Your task to perform on an android device: Open display settings Image 0: 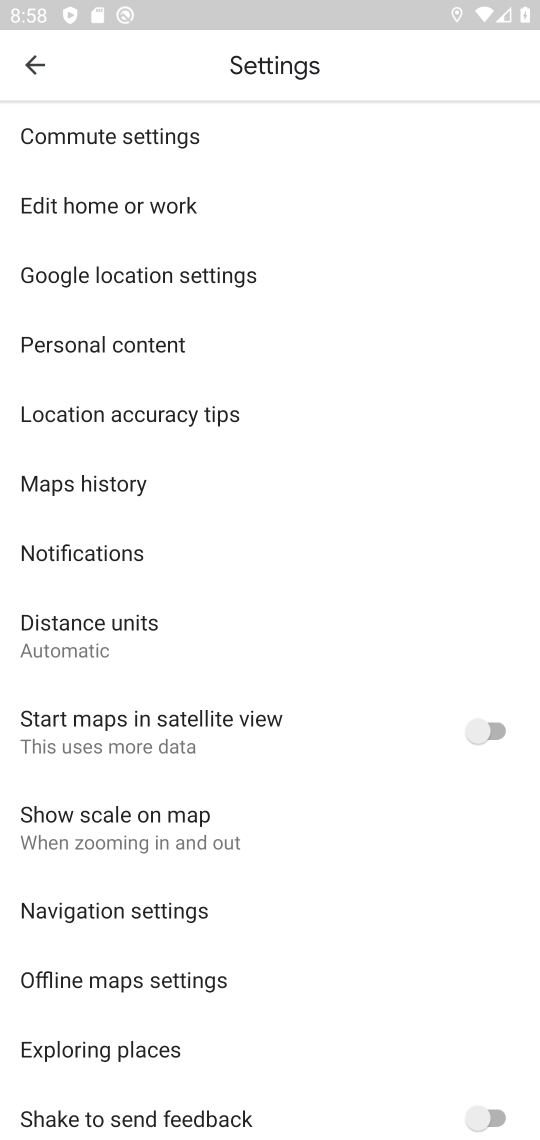
Step 0: click (418, 863)
Your task to perform on an android device: Open display settings Image 1: 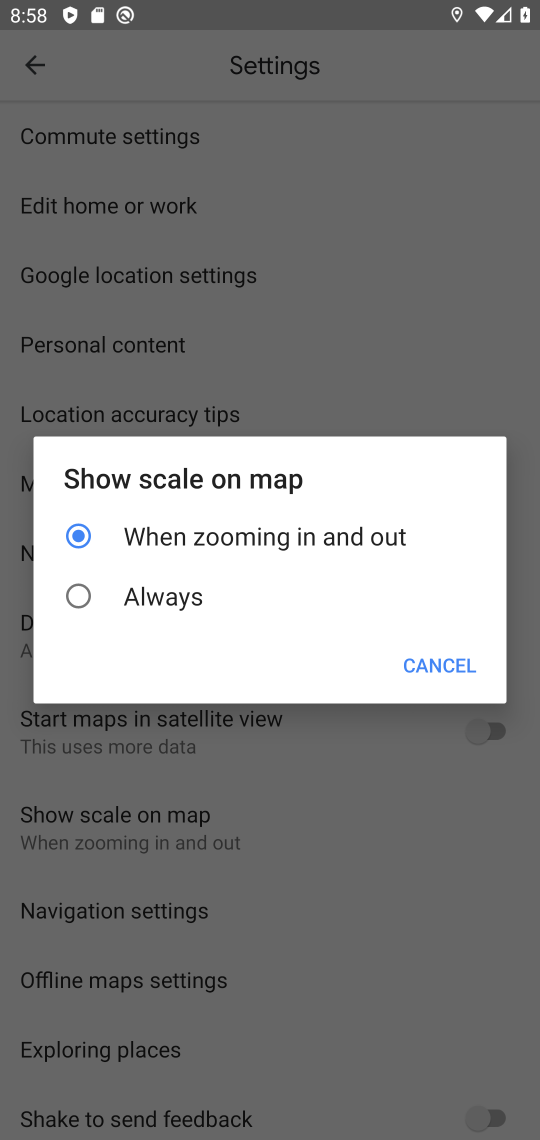
Step 1: press home button
Your task to perform on an android device: Open display settings Image 2: 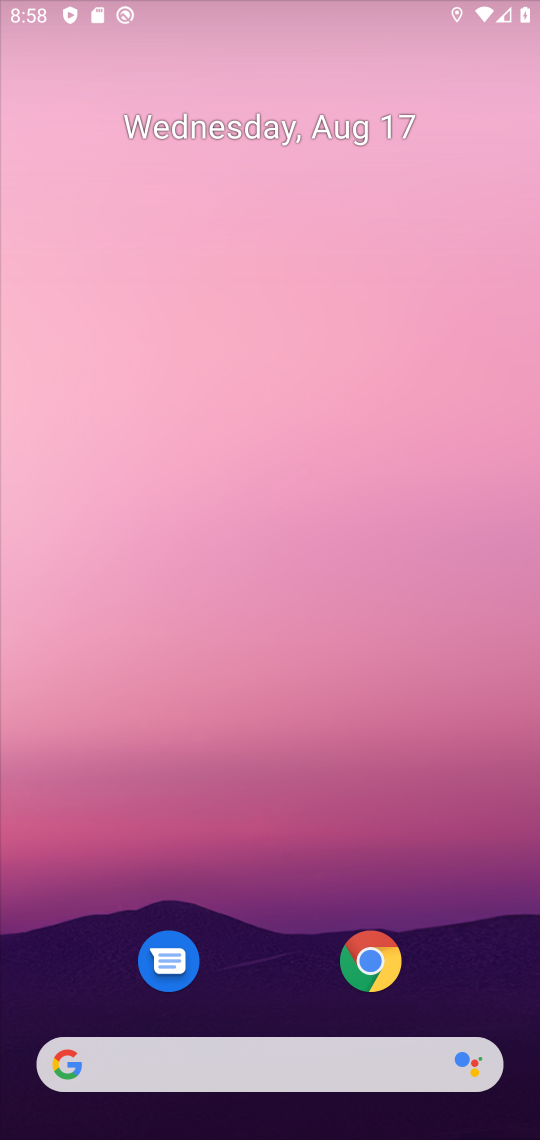
Step 2: drag from (363, 589) to (425, 112)
Your task to perform on an android device: Open display settings Image 3: 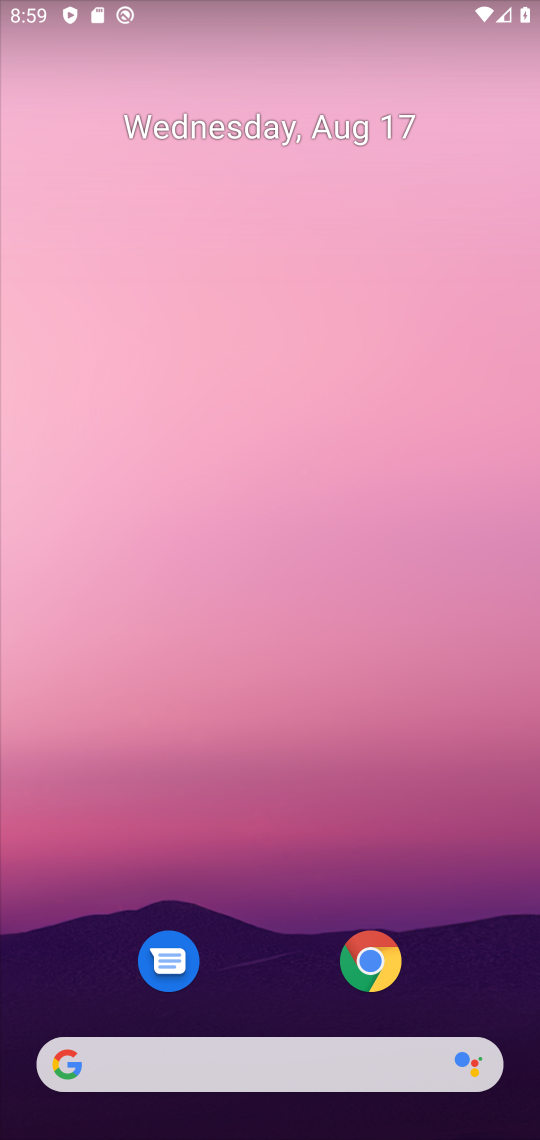
Step 3: drag from (260, 886) to (371, 98)
Your task to perform on an android device: Open display settings Image 4: 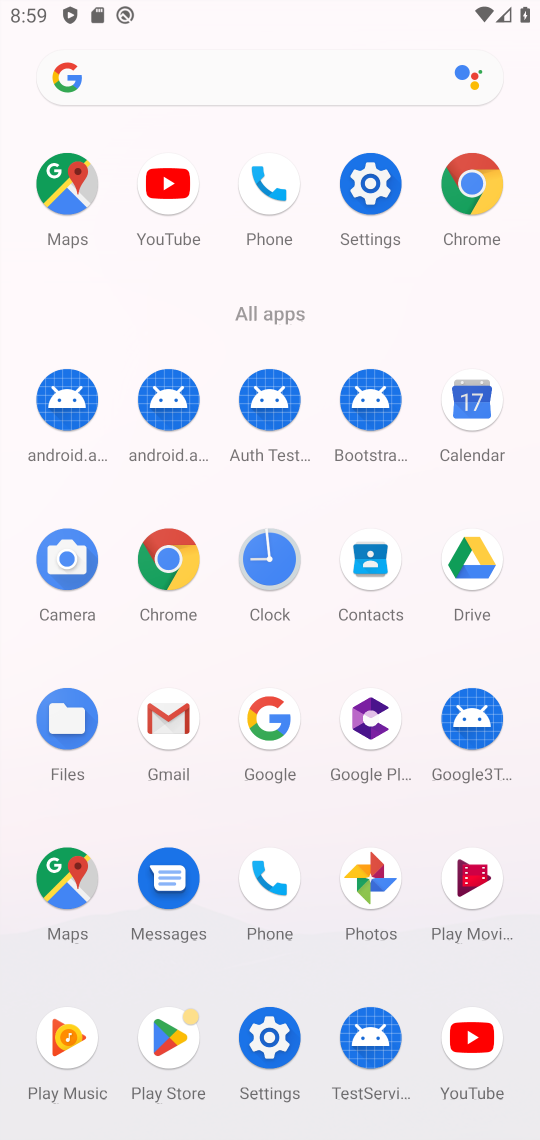
Step 4: click (277, 1042)
Your task to perform on an android device: Open display settings Image 5: 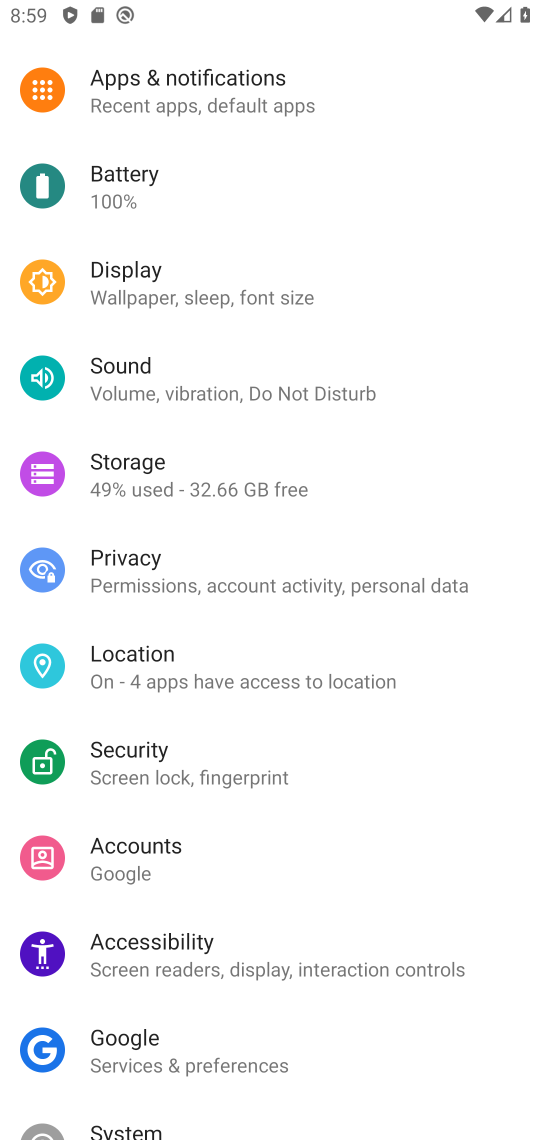
Step 5: click (201, 290)
Your task to perform on an android device: Open display settings Image 6: 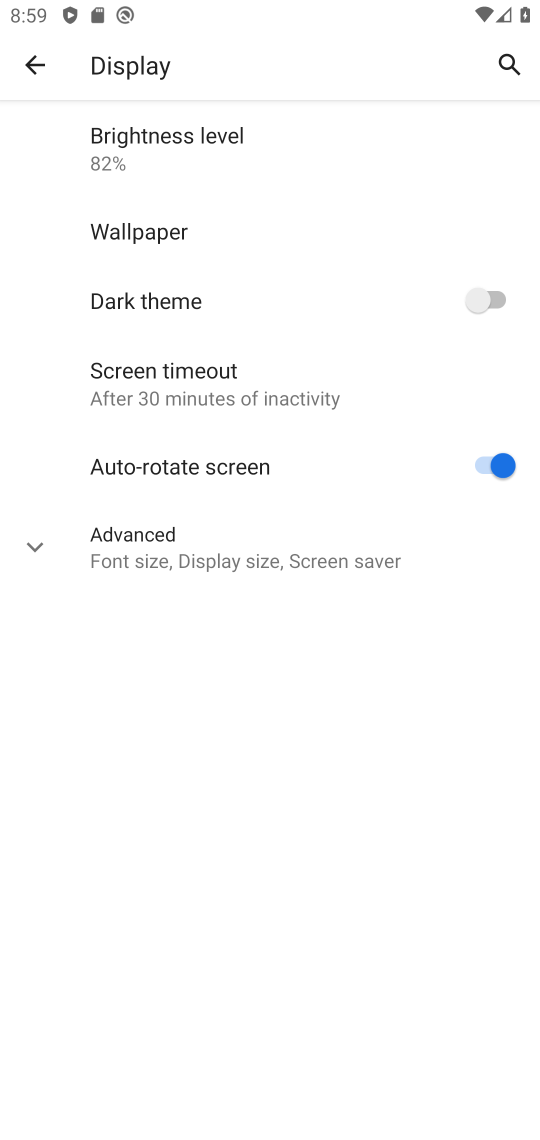
Step 6: task complete